Your task to perform on an android device: make emails show in primary in the gmail app Image 0: 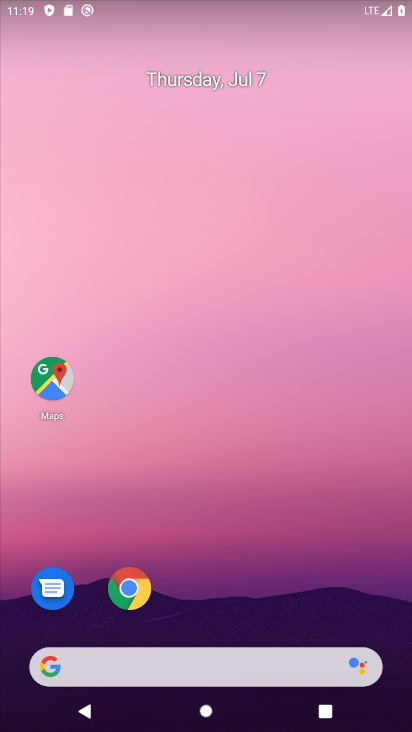
Step 0: drag from (209, 552) to (178, 395)
Your task to perform on an android device: make emails show in primary in the gmail app Image 1: 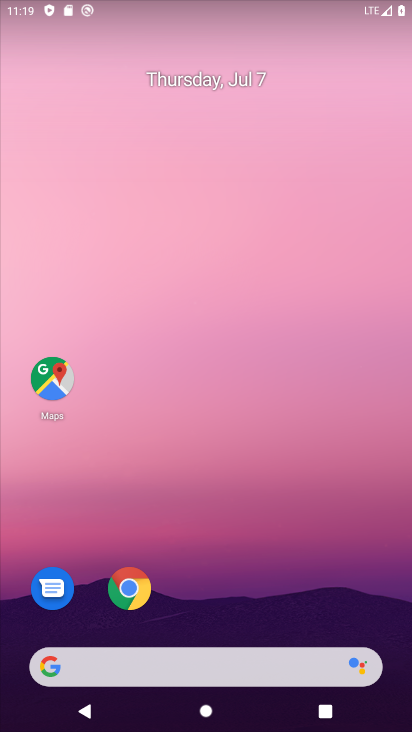
Step 1: drag from (227, 591) to (235, 100)
Your task to perform on an android device: make emails show in primary in the gmail app Image 2: 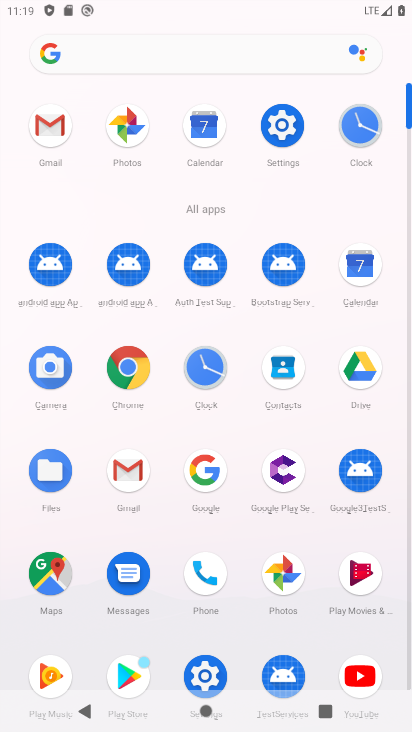
Step 2: click (47, 136)
Your task to perform on an android device: make emails show in primary in the gmail app Image 3: 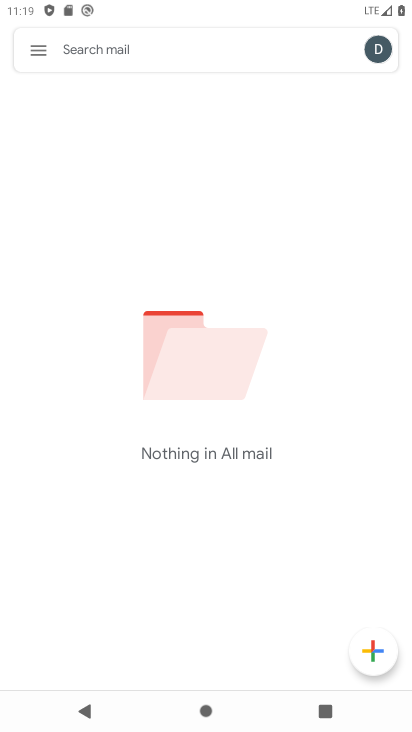
Step 3: click (34, 48)
Your task to perform on an android device: make emails show in primary in the gmail app Image 4: 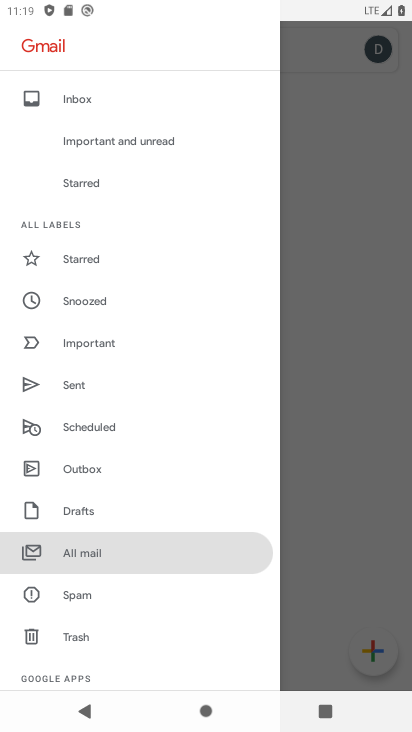
Step 4: drag from (133, 612) to (76, 122)
Your task to perform on an android device: make emails show in primary in the gmail app Image 5: 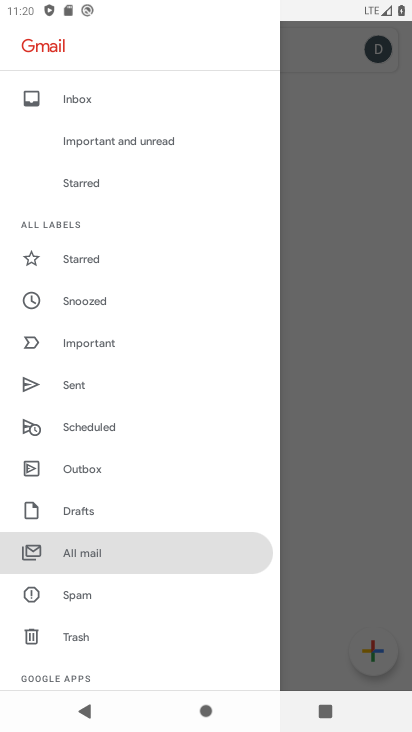
Step 5: drag from (100, 651) to (101, 221)
Your task to perform on an android device: make emails show in primary in the gmail app Image 6: 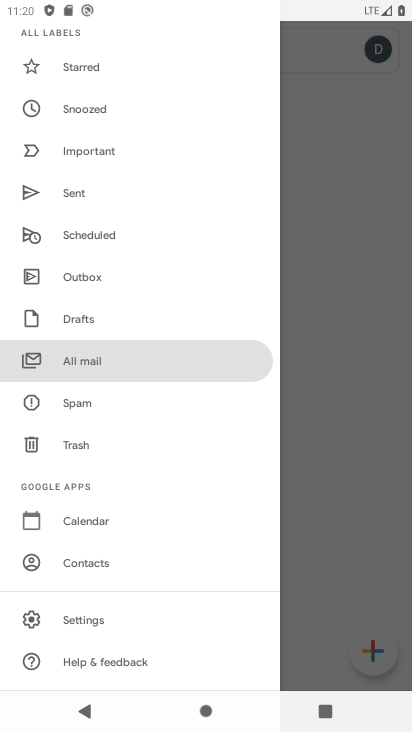
Step 6: click (89, 632)
Your task to perform on an android device: make emails show in primary in the gmail app Image 7: 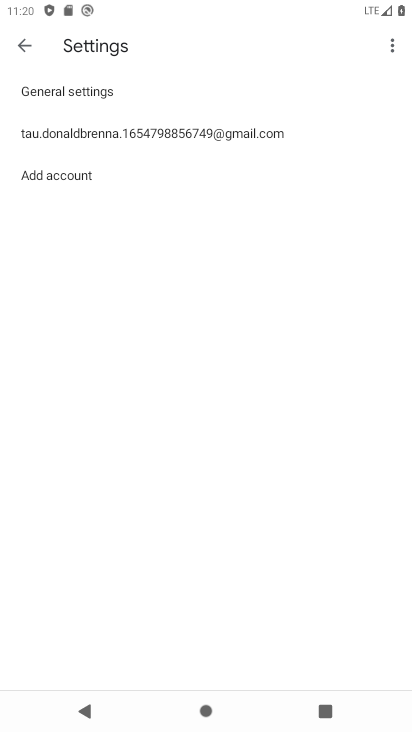
Step 7: click (188, 150)
Your task to perform on an android device: make emails show in primary in the gmail app Image 8: 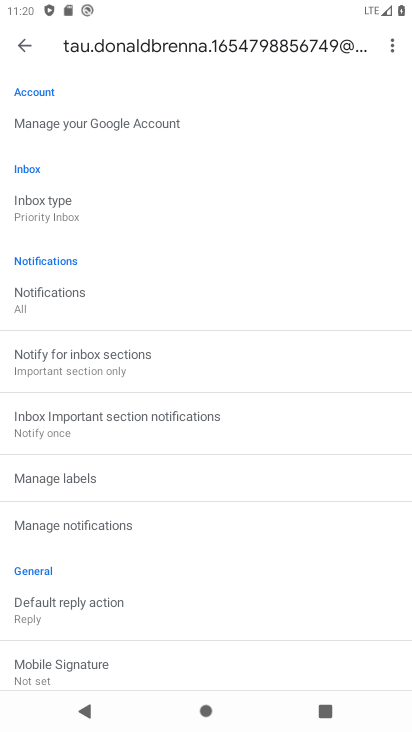
Step 8: drag from (170, 568) to (185, 177)
Your task to perform on an android device: make emails show in primary in the gmail app Image 9: 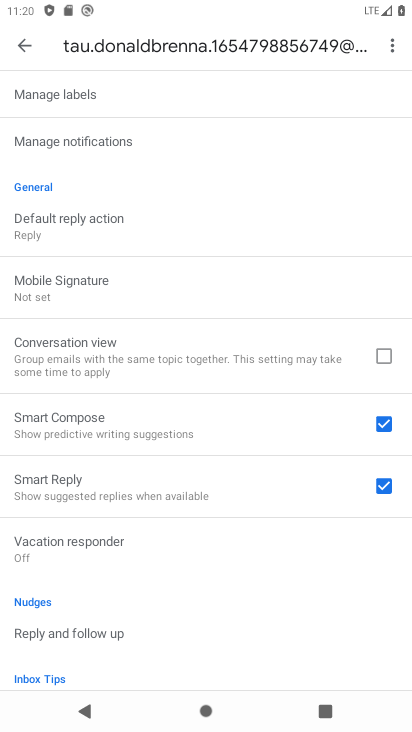
Step 9: drag from (125, 243) to (124, 439)
Your task to perform on an android device: make emails show in primary in the gmail app Image 10: 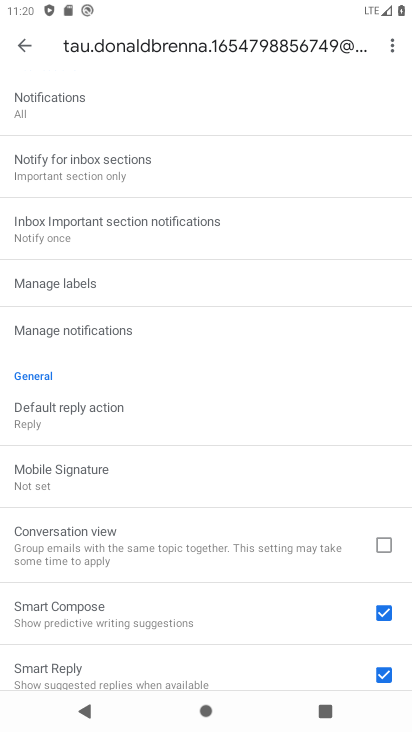
Step 10: drag from (124, 200) to (124, 482)
Your task to perform on an android device: make emails show in primary in the gmail app Image 11: 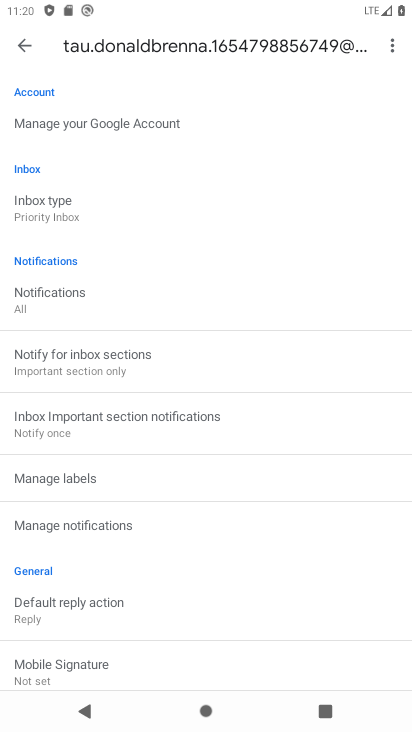
Step 11: click (38, 208)
Your task to perform on an android device: make emails show in primary in the gmail app Image 12: 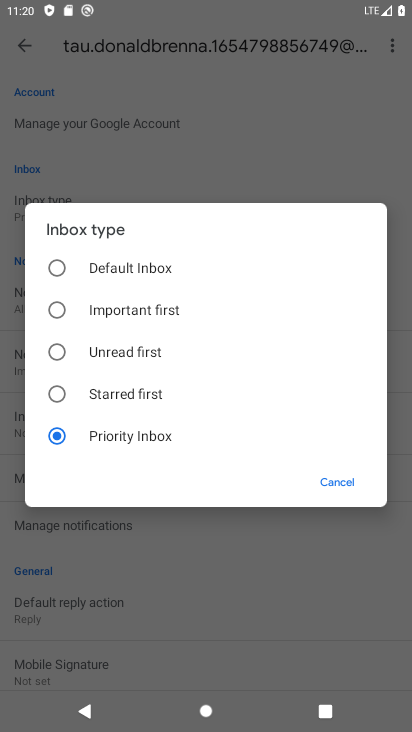
Step 12: click (87, 271)
Your task to perform on an android device: make emails show in primary in the gmail app Image 13: 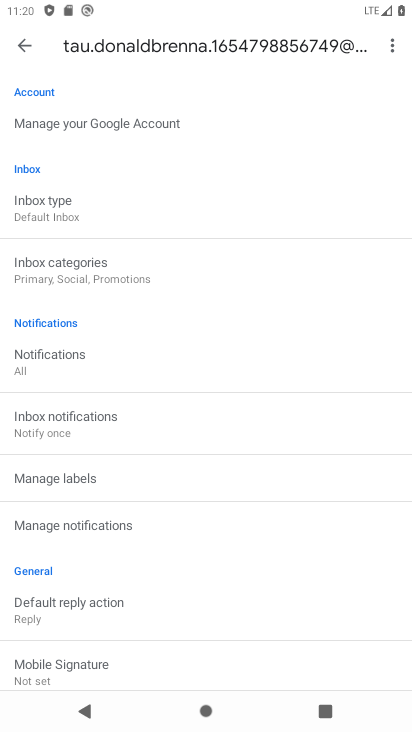
Step 13: task complete